Your task to perform on an android device: Open Google Image 0: 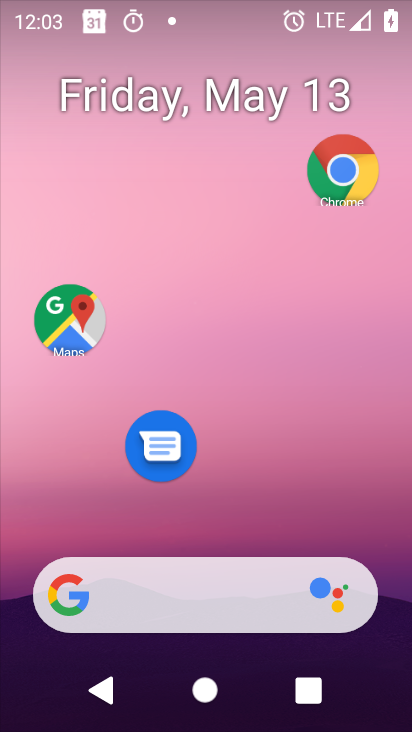
Step 0: drag from (260, 585) to (185, 15)
Your task to perform on an android device: Open Google Image 1: 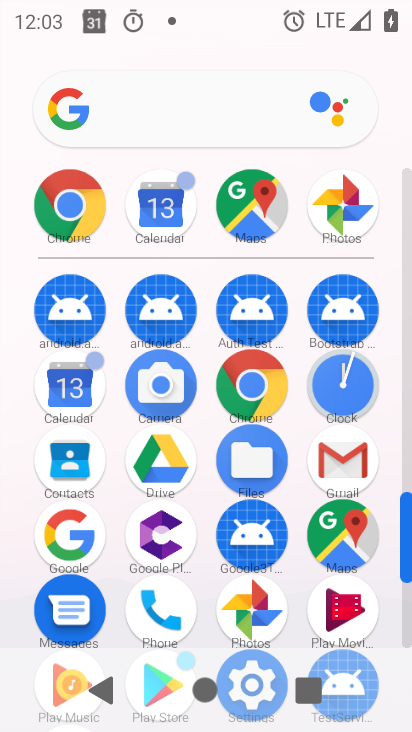
Step 1: click (250, 389)
Your task to perform on an android device: Open Google Image 2: 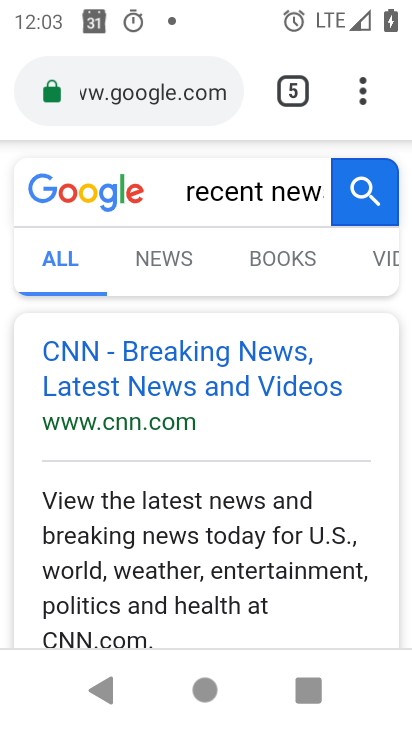
Step 2: click (183, 94)
Your task to perform on an android device: Open Google Image 3: 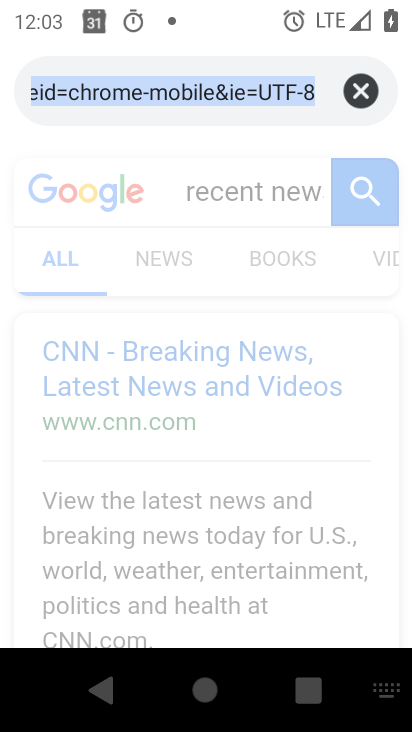
Step 3: click (354, 90)
Your task to perform on an android device: Open Google Image 4: 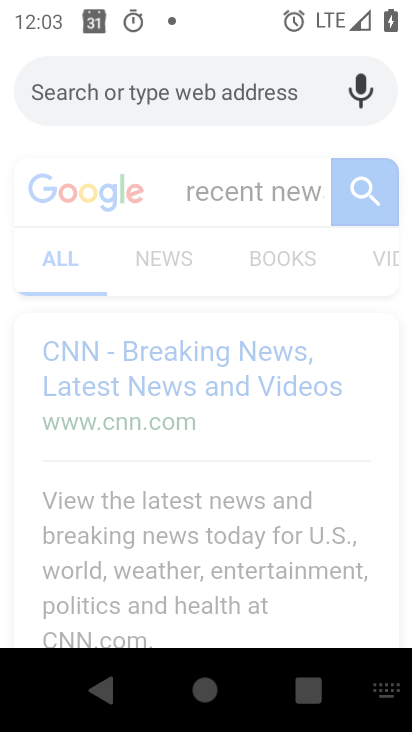
Step 4: task complete